Your task to perform on an android device: set default search engine in the chrome app Image 0: 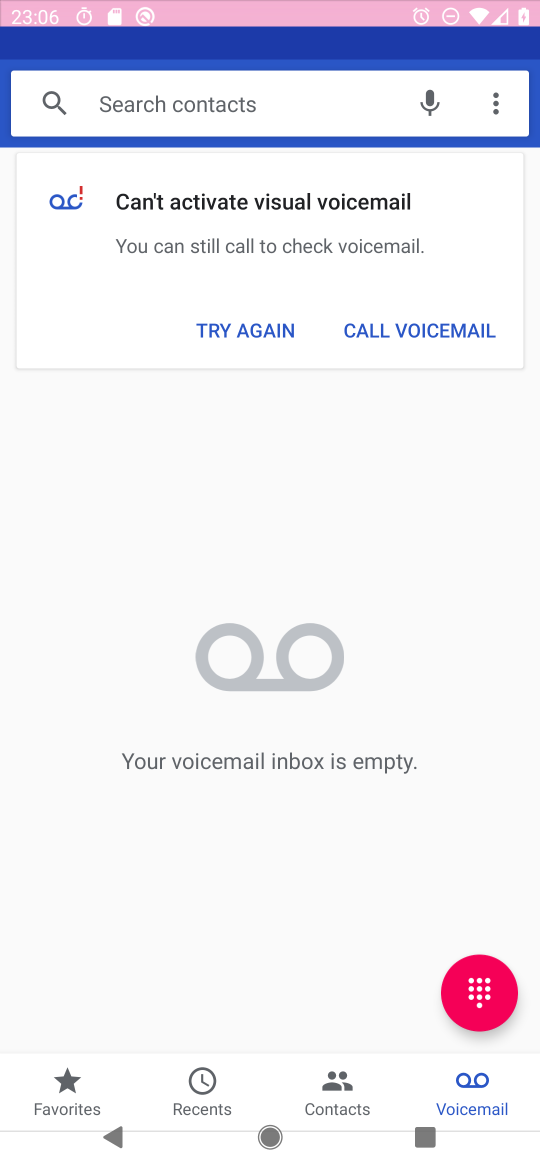
Step 0: click (517, 267)
Your task to perform on an android device: set default search engine in the chrome app Image 1: 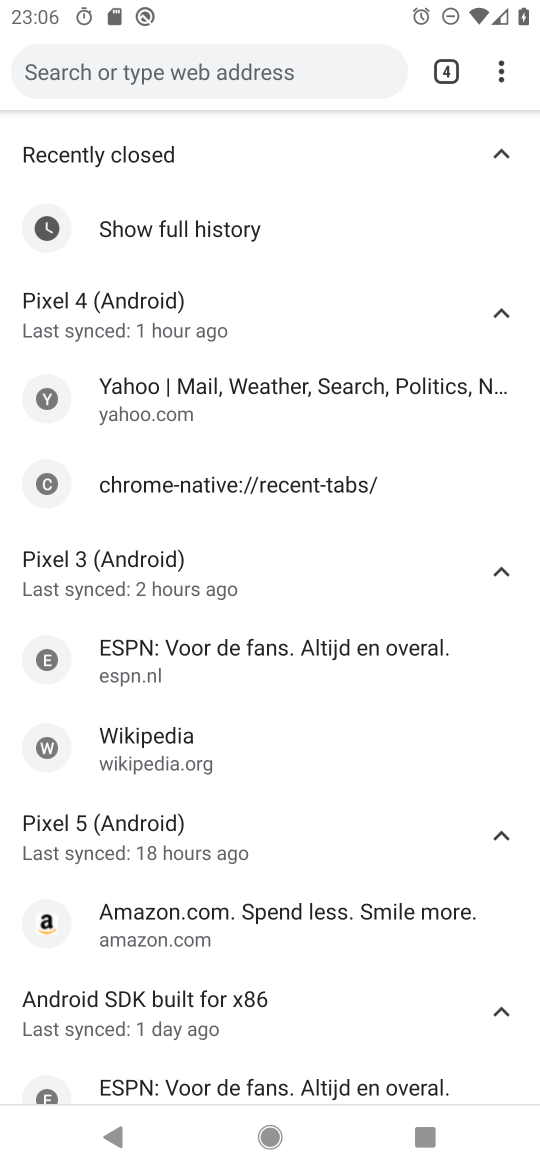
Step 1: drag from (495, 70) to (269, 601)
Your task to perform on an android device: set default search engine in the chrome app Image 2: 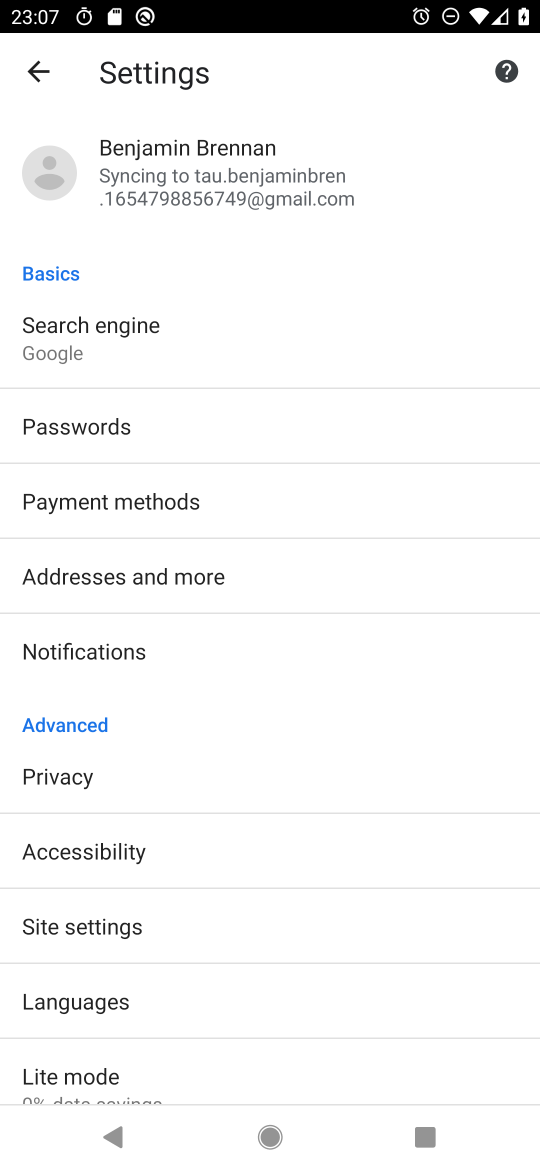
Step 2: click (136, 927)
Your task to perform on an android device: set default search engine in the chrome app Image 3: 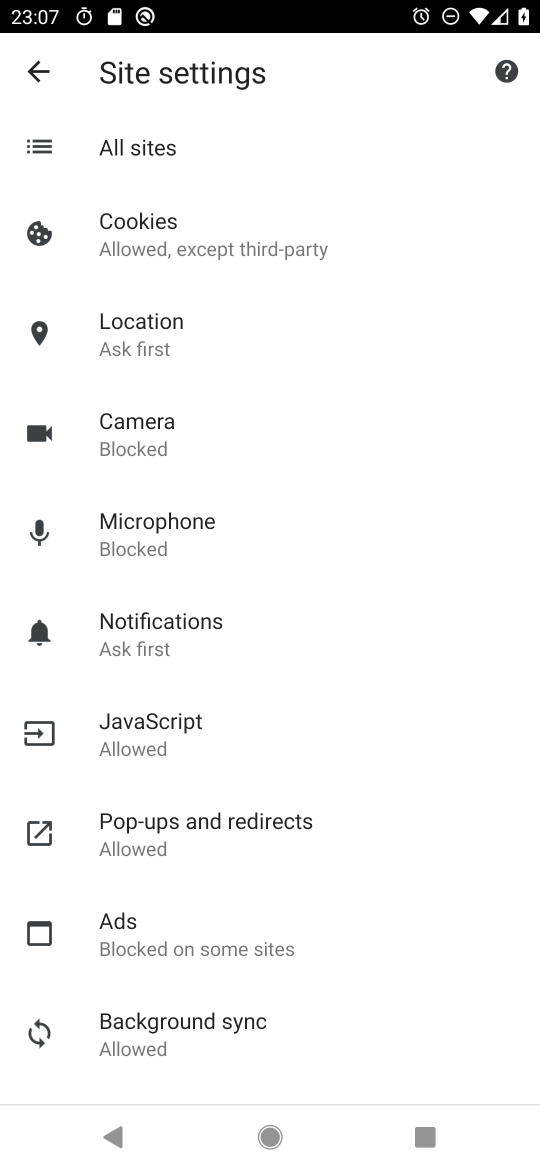
Step 3: click (25, 57)
Your task to perform on an android device: set default search engine in the chrome app Image 4: 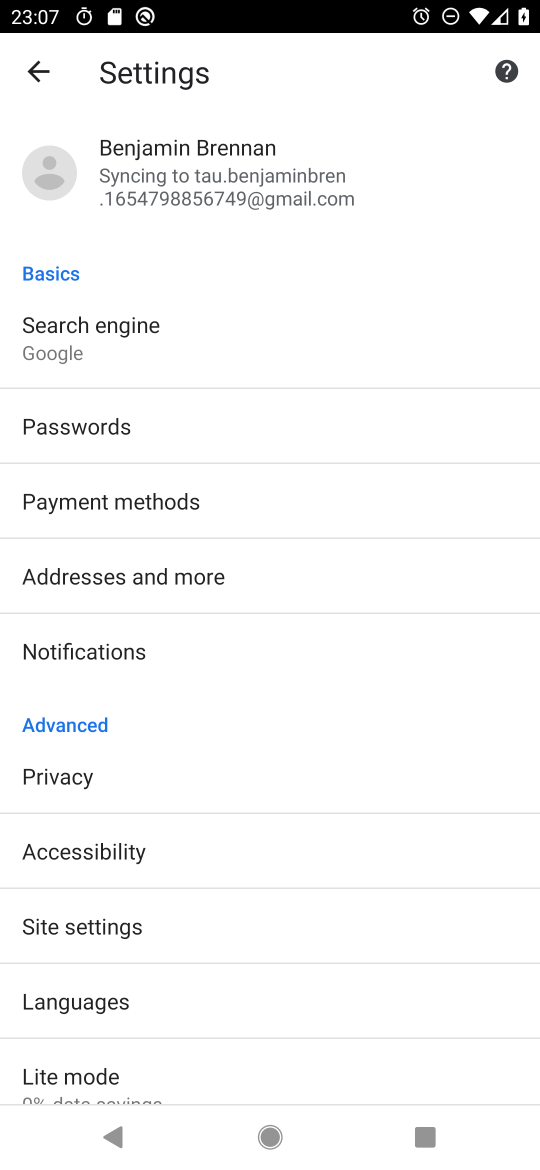
Step 4: click (93, 351)
Your task to perform on an android device: set default search engine in the chrome app Image 5: 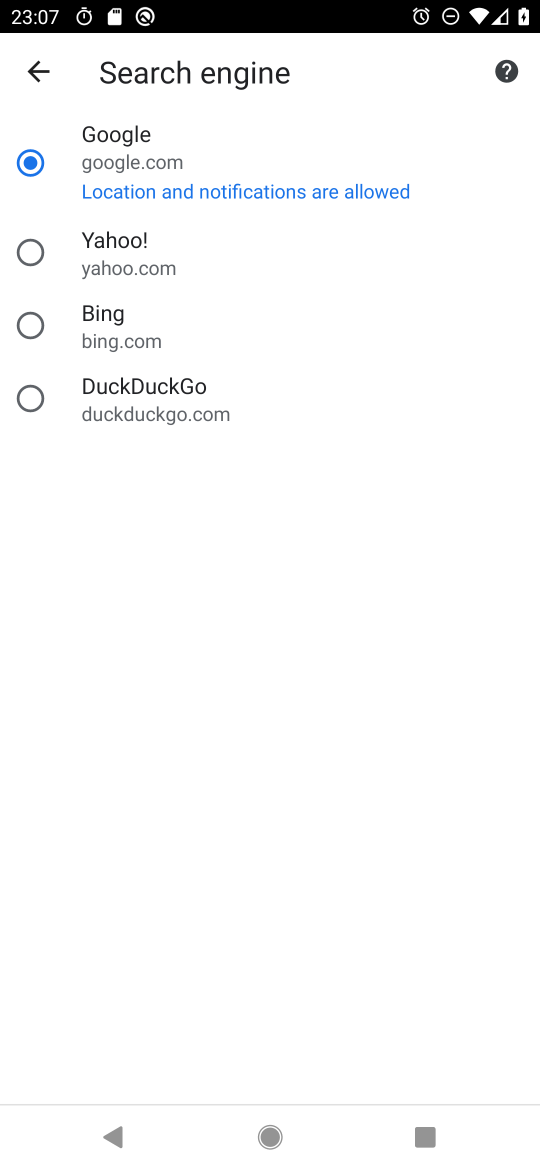
Step 5: task complete